Your task to perform on an android device: Check the settings for the Google Chrome app Image 0: 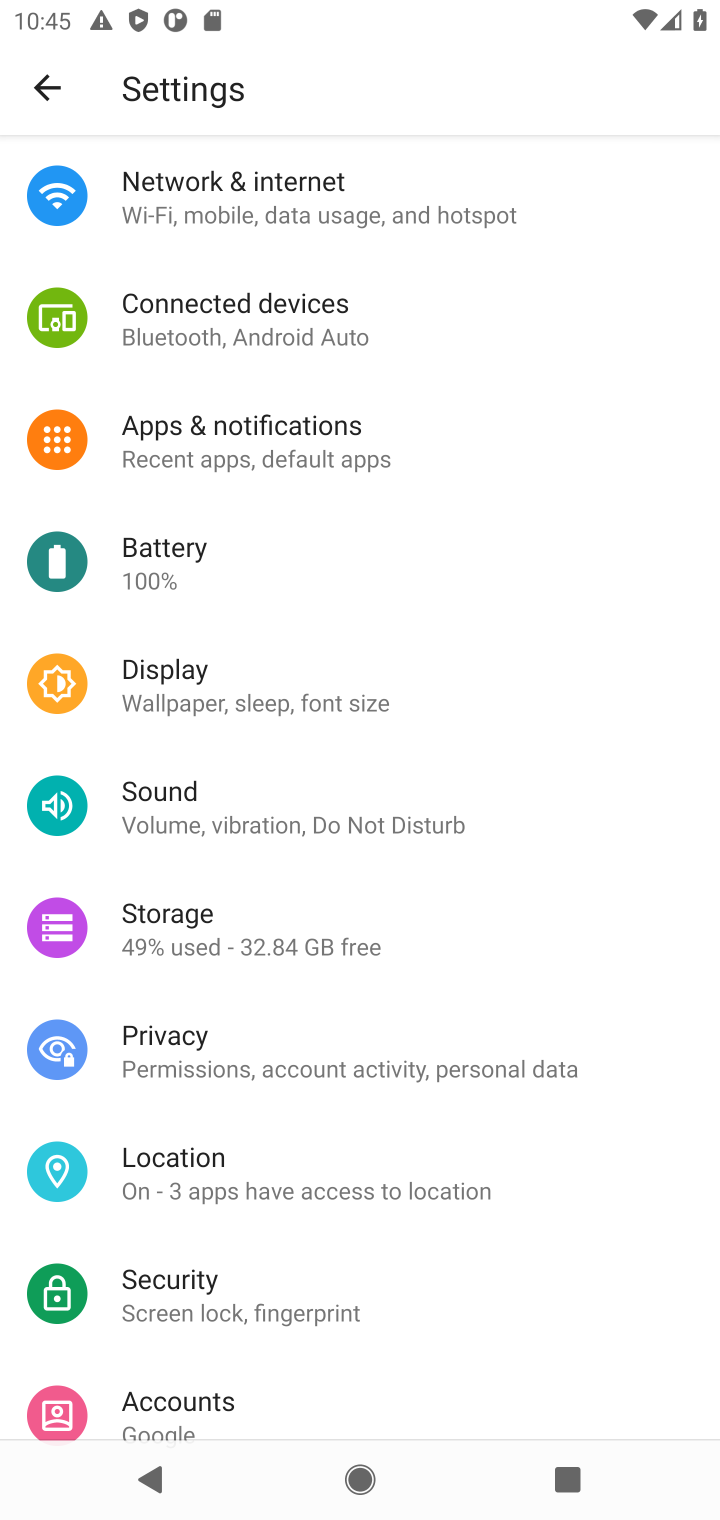
Step 0: press home button
Your task to perform on an android device: Check the settings for the Google Chrome app Image 1: 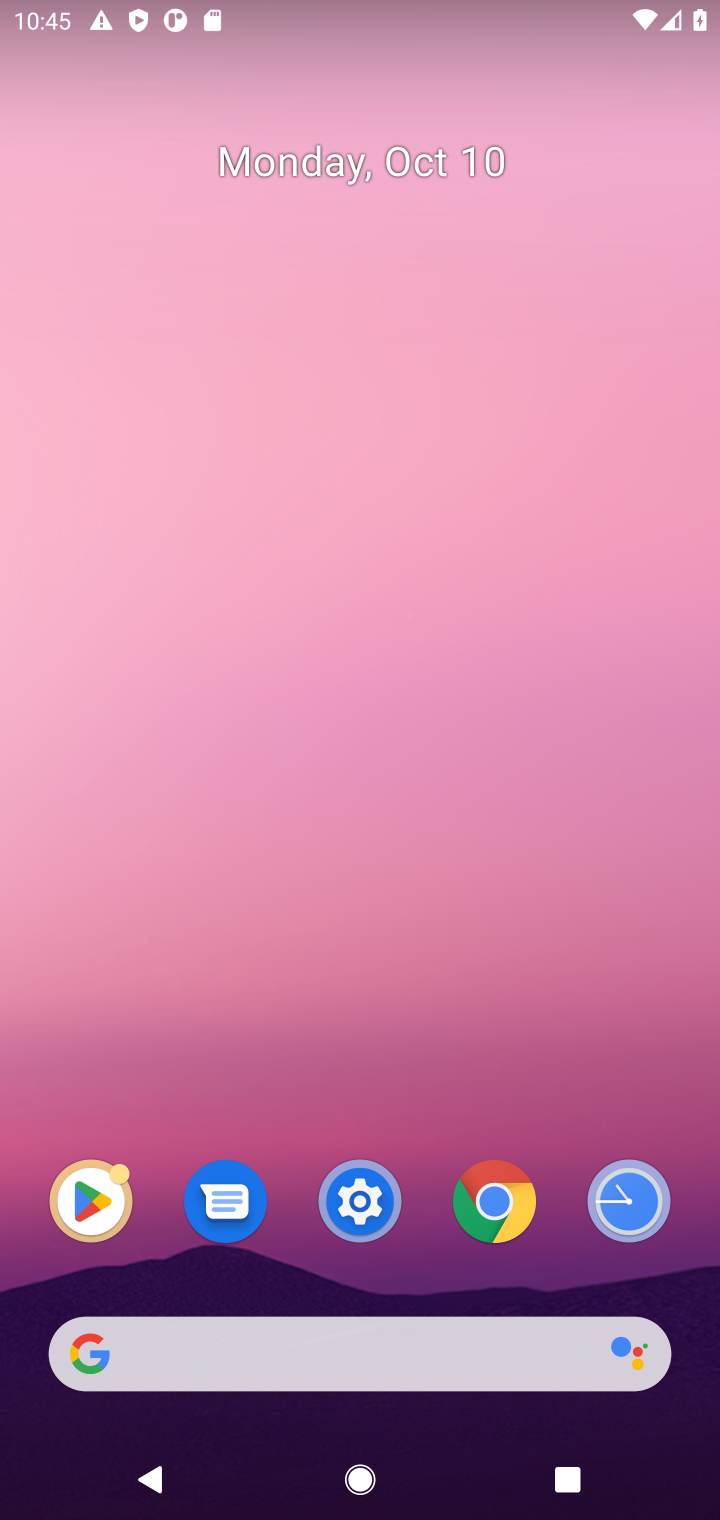
Step 1: click (499, 1194)
Your task to perform on an android device: Check the settings for the Google Chrome app Image 2: 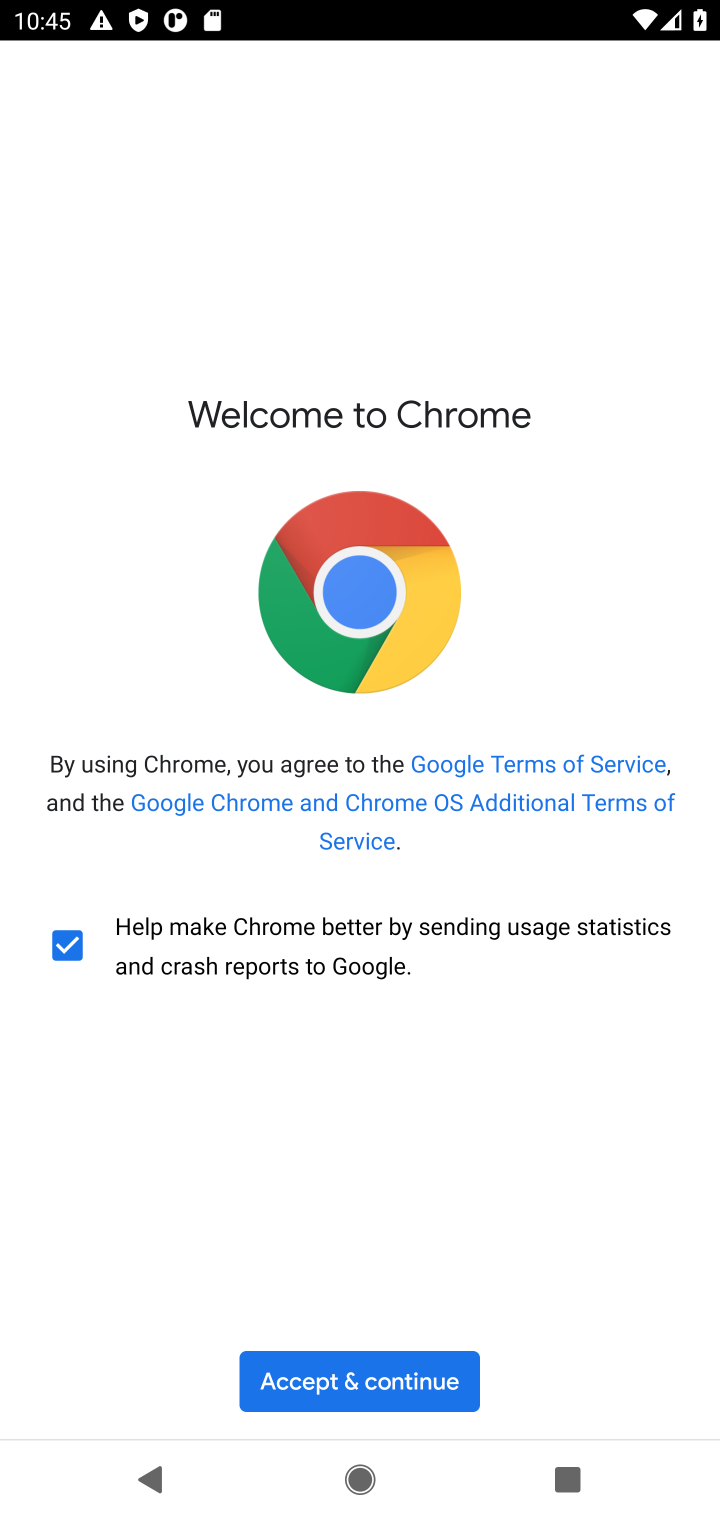
Step 2: task complete